Your task to perform on an android device: Turn off the flashlight Image 0: 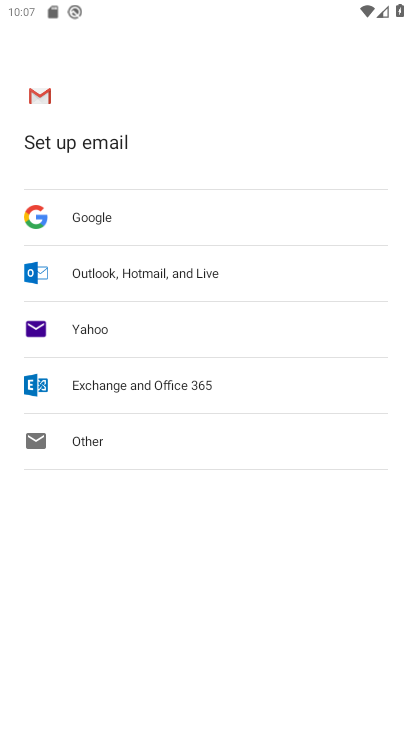
Step 0: press home button
Your task to perform on an android device: Turn off the flashlight Image 1: 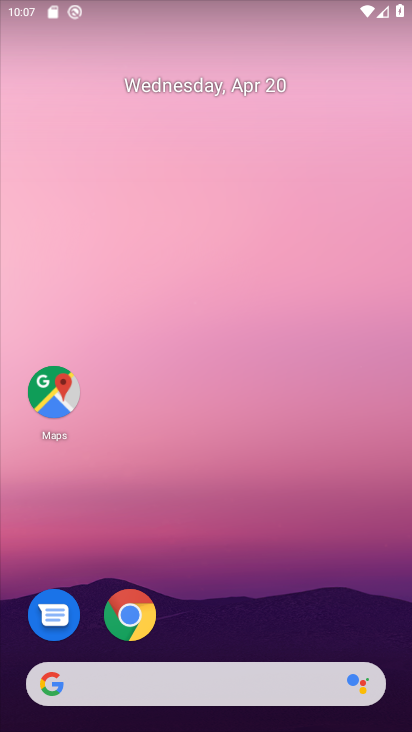
Step 1: drag from (293, 601) to (365, 198)
Your task to perform on an android device: Turn off the flashlight Image 2: 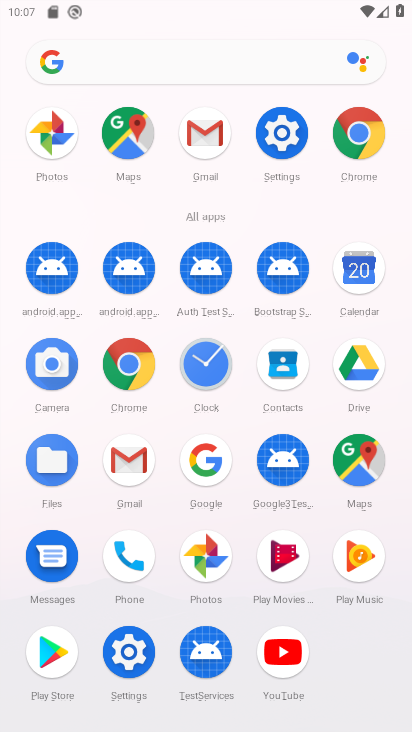
Step 2: click (272, 138)
Your task to perform on an android device: Turn off the flashlight Image 3: 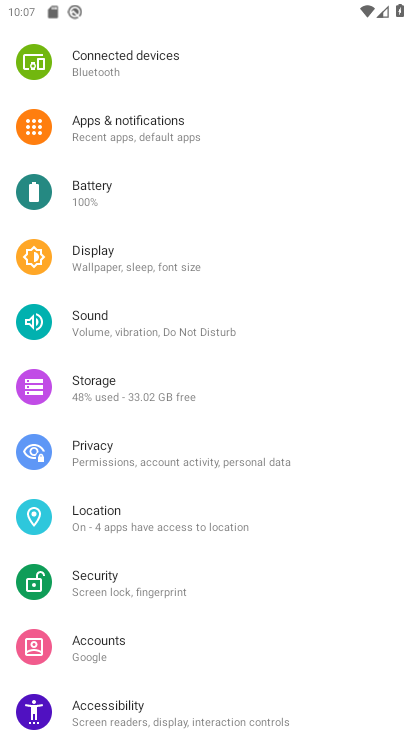
Step 3: drag from (266, 148) to (288, 599)
Your task to perform on an android device: Turn off the flashlight Image 4: 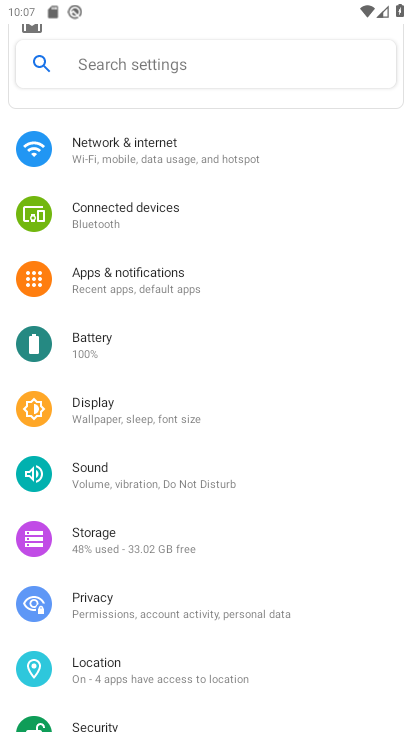
Step 4: click (199, 66)
Your task to perform on an android device: Turn off the flashlight Image 5: 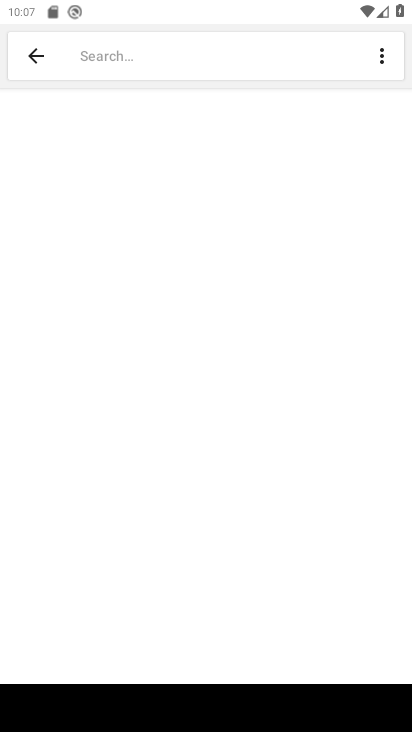
Step 5: type "flashlight"
Your task to perform on an android device: Turn off the flashlight Image 6: 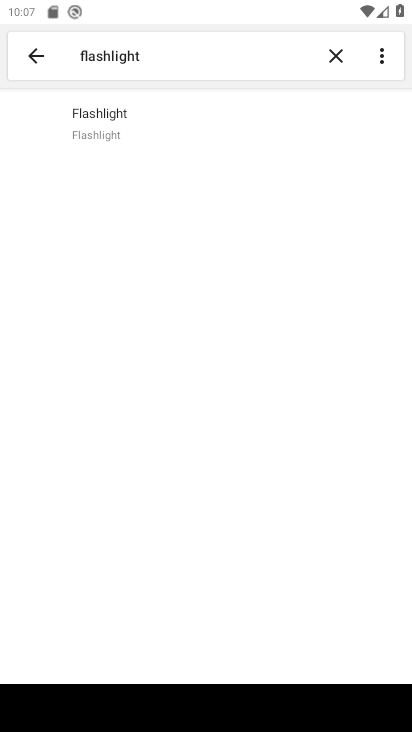
Step 6: click (114, 131)
Your task to perform on an android device: Turn off the flashlight Image 7: 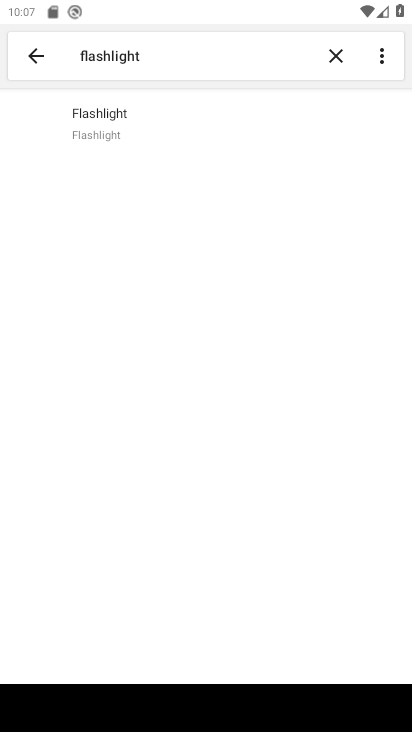
Step 7: task complete